Your task to perform on an android device: snooze an email in the gmail app Image 0: 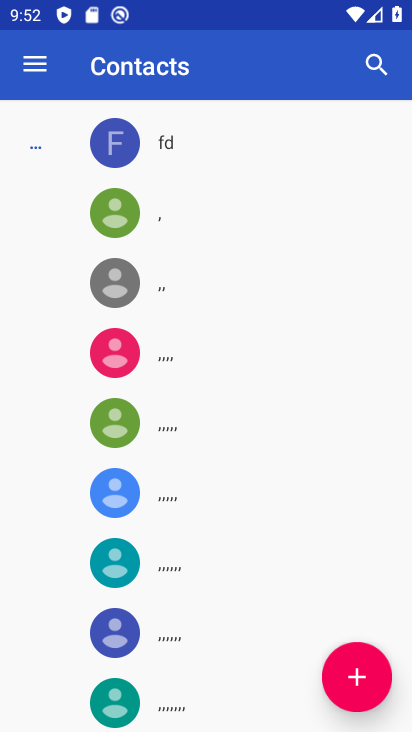
Step 0: press home button
Your task to perform on an android device: snooze an email in the gmail app Image 1: 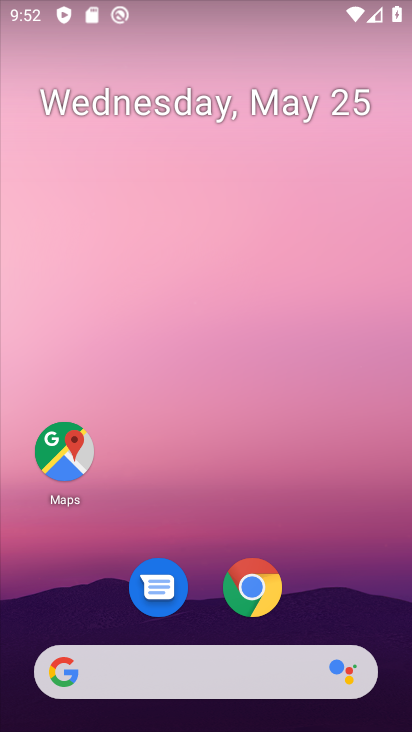
Step 1: drag from (217, 623) to (184, 1)
Your task to perform on an android device: snooze an email in the gmail app Image 2: 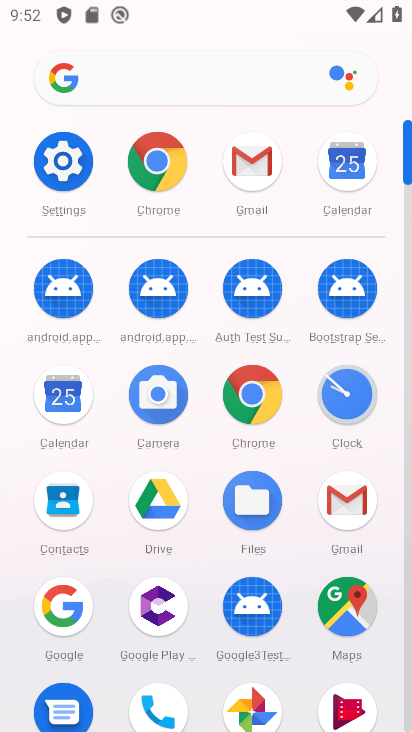
Step 2: click (348, 511)
Your task to perform on an android device: snooze an email in the gmail app Image 3: 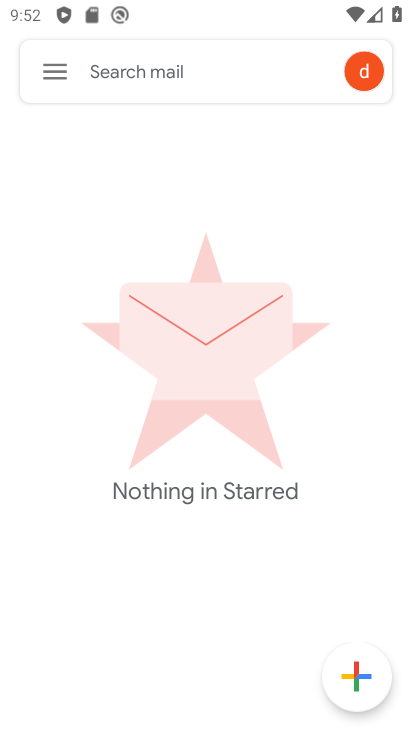
Step 3: click (50, 57)
Your task to perform on an android device: snooze an email in the gmail app Image 4: 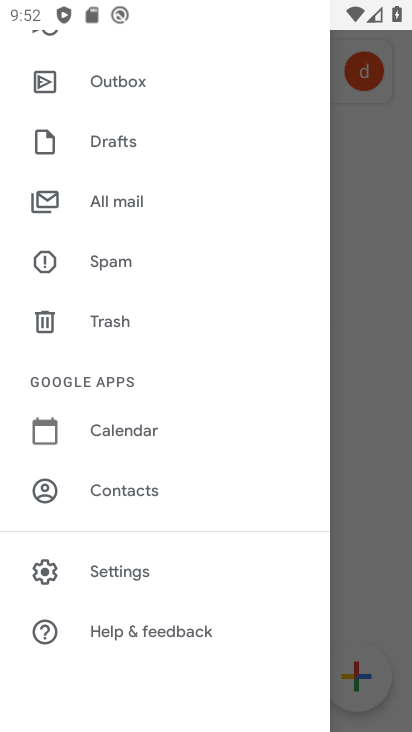
Step 4: click (145, 210)
Your task to perform on an android device: snooze an email in the gmail app Image 5: 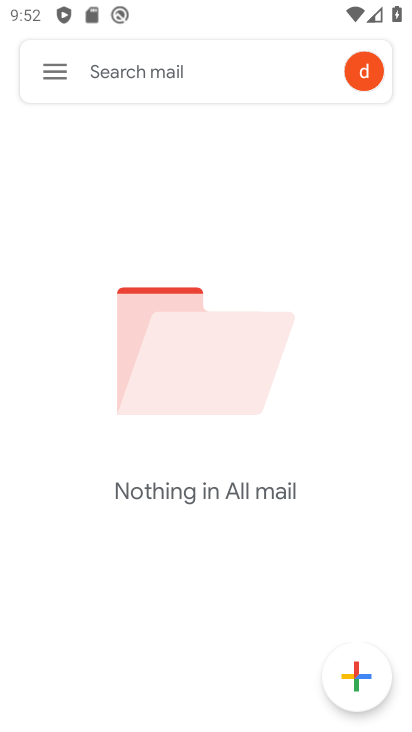
Step 5: task complete